Your task to perform on an android device: Open Youtube and go to the subscriptions tab Image 0: 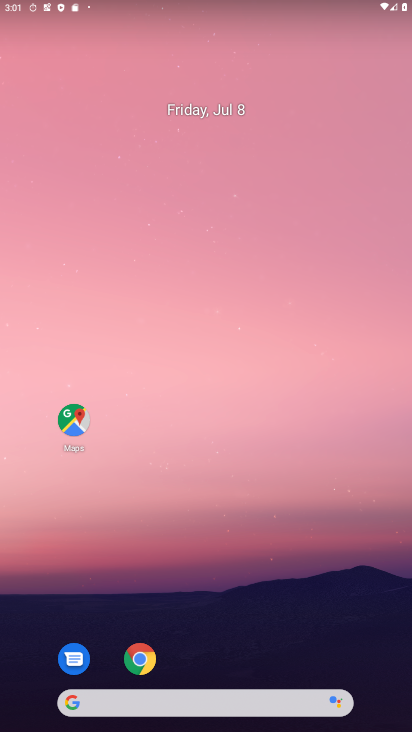
Step 0: drag from (258, 600) to (258, 212)
Your task to perform on an android device: Open Youtube and go to the subscriptions tab Image 1: 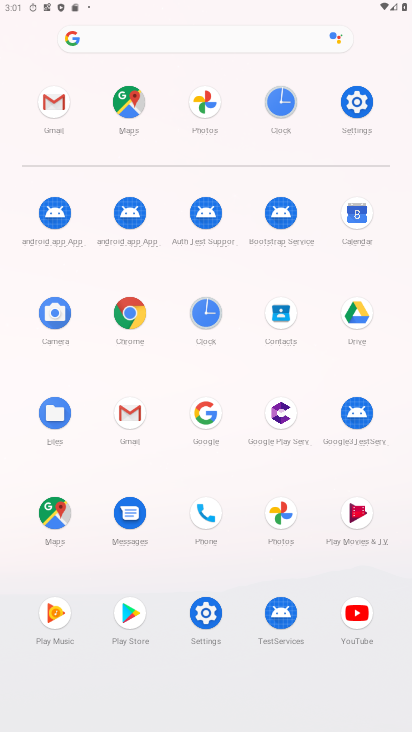
Step 1: click (365, 612)
Your task to perform on an android device: Open Youtube and go to the subscriptions tab Image 2: 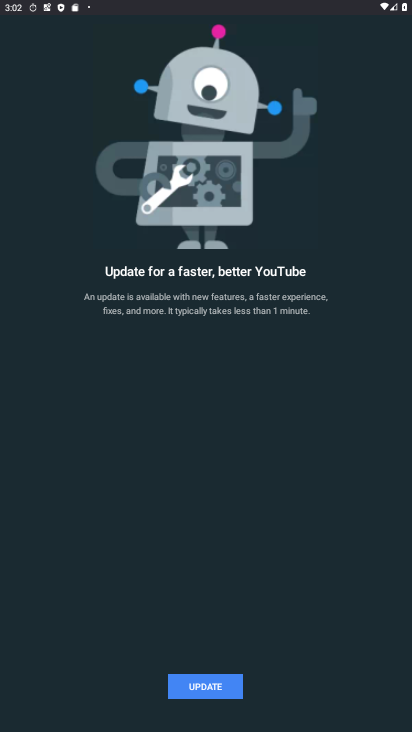
Step 2: click (195, 690)
Your task to perform on an android device: Open Youtube and go to the subscriptions tab Image 3: 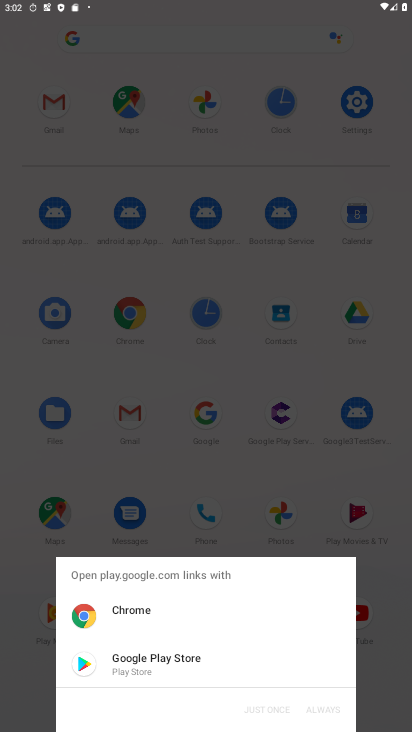
Step 3: click (191, 666)
Your task to perform on an android device: Open Youtube and go to the subscriptions tab Image 4: 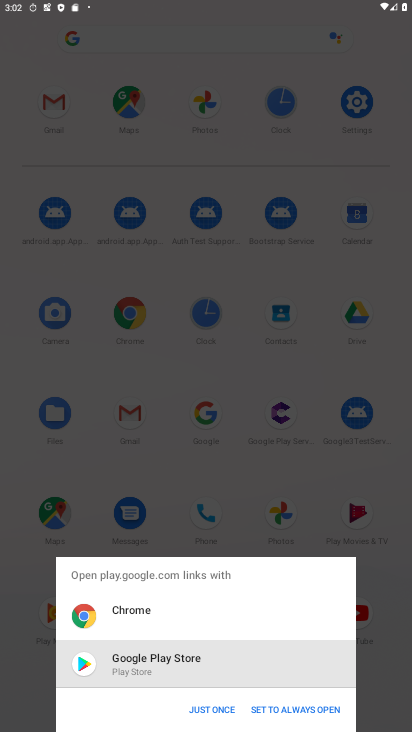
Step 4: click (213, 711)
Your task to perform on an android device: Open Youtube and go to the subscriptions tab Image 5: 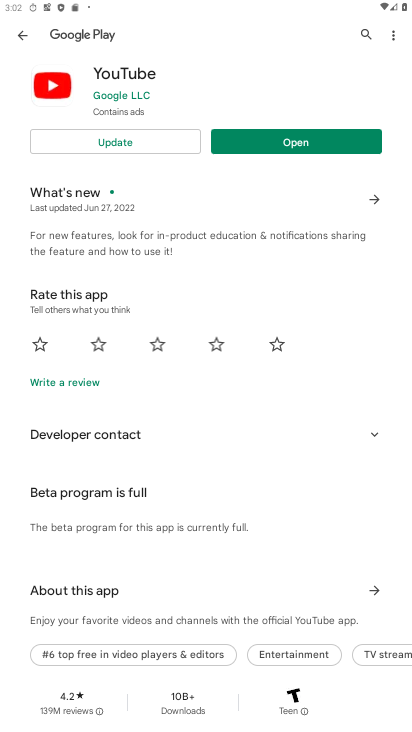
Step 5: click (128, 143)
Your task to perform on an android device: Open Youtube and go to the subscriptions tab Image 6: 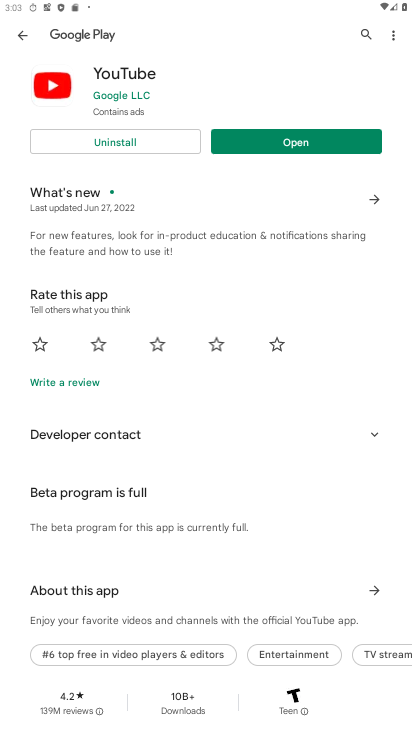
Step 6: click (300, 142)
Your task to perform on an android device: Open Youtube and go to the subscriptions tab Image 7: 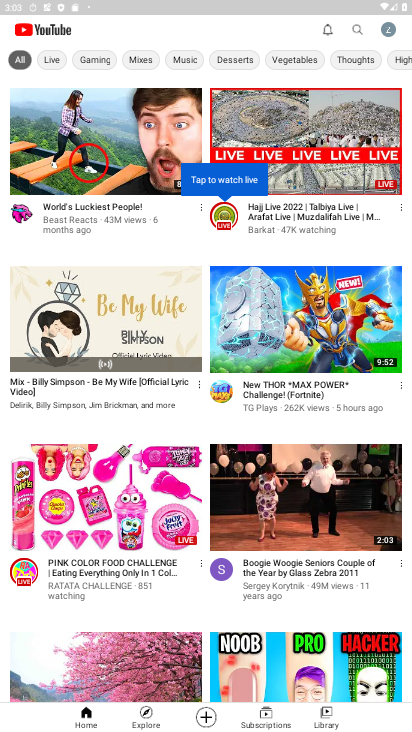
Step 7: click (267, 724)
Your task to perform on an android device: Open Youtube and go to the subscriptions tab Image 8: 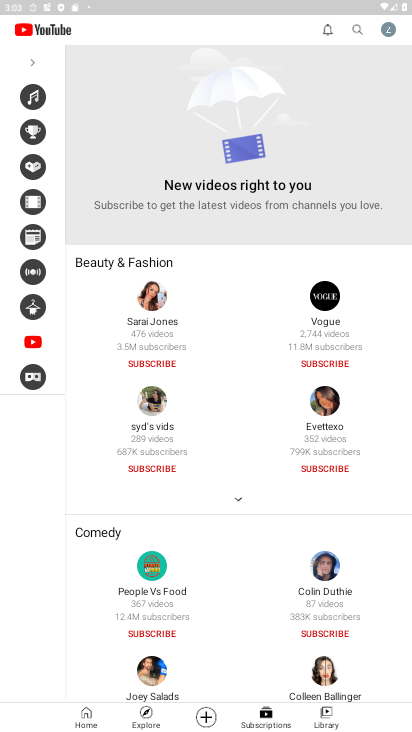
Step 8: task complete